Your task to perform on an android device: find photos in the google photos app Image 0: 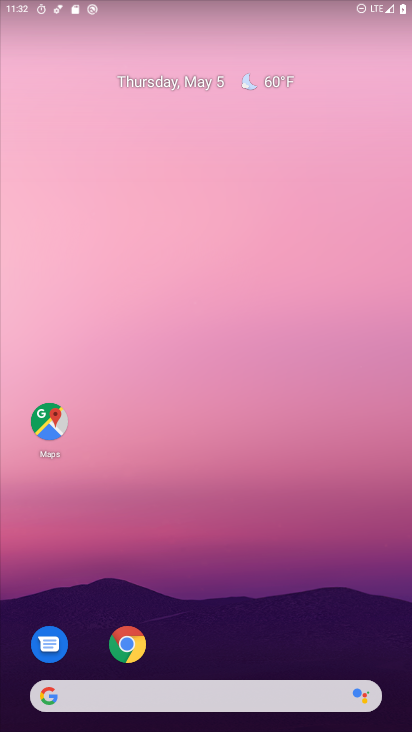
Step 0: drag from (367, 639) to (331, 186)
Your task to perform on an android device: find photos in the google photos app Image 1: 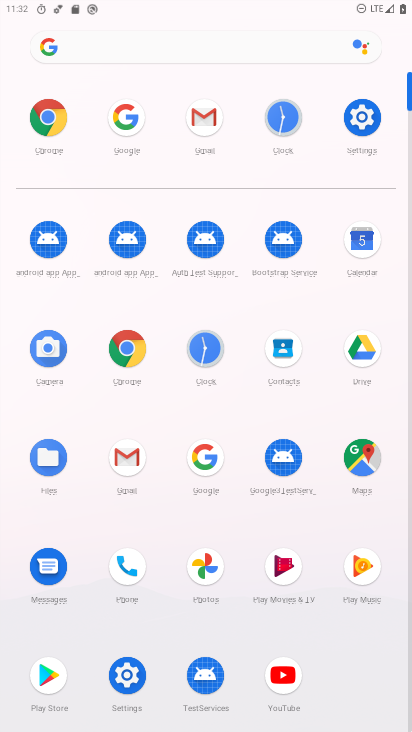
Step 1: click (209, 575)
Your task to perform on an android device: find photos in the google photos app Image 2: 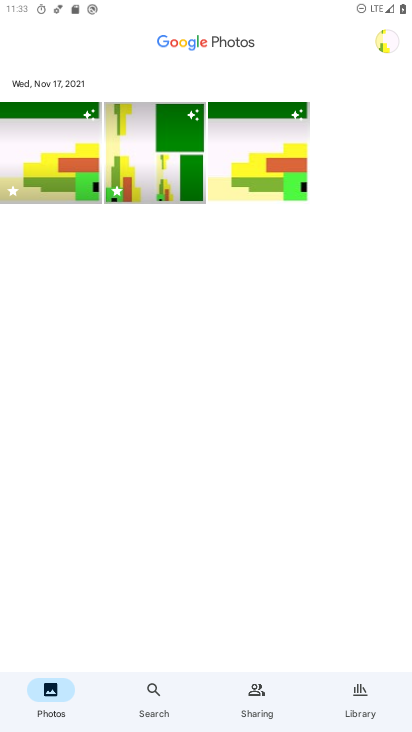
Step 2: task complete